Your task to perform on an android device: install app "File Manager" Image 0: 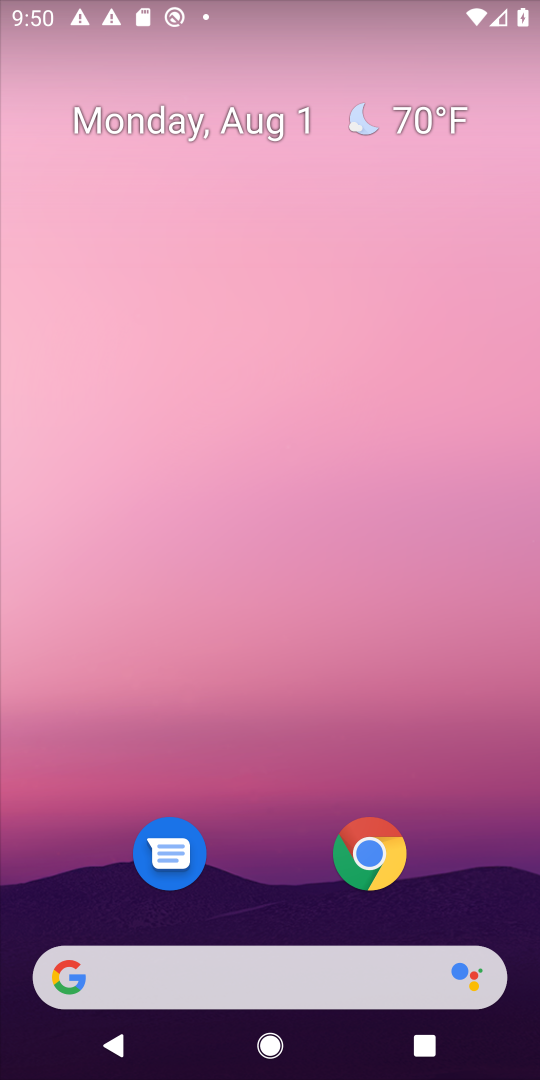
Step 0: drag from (256, 814) to (147, 10)
Your task to perform on an android device: install app "File Manager" Image 1: 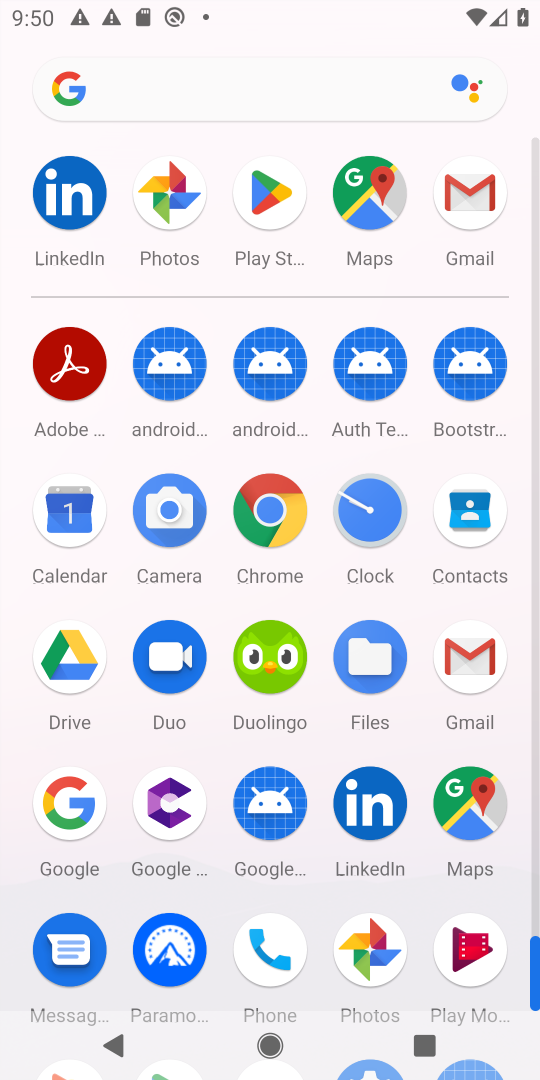
Step 1: click (262, 172)
Your task to perform on an android device: install app "File Manager" Image 2: 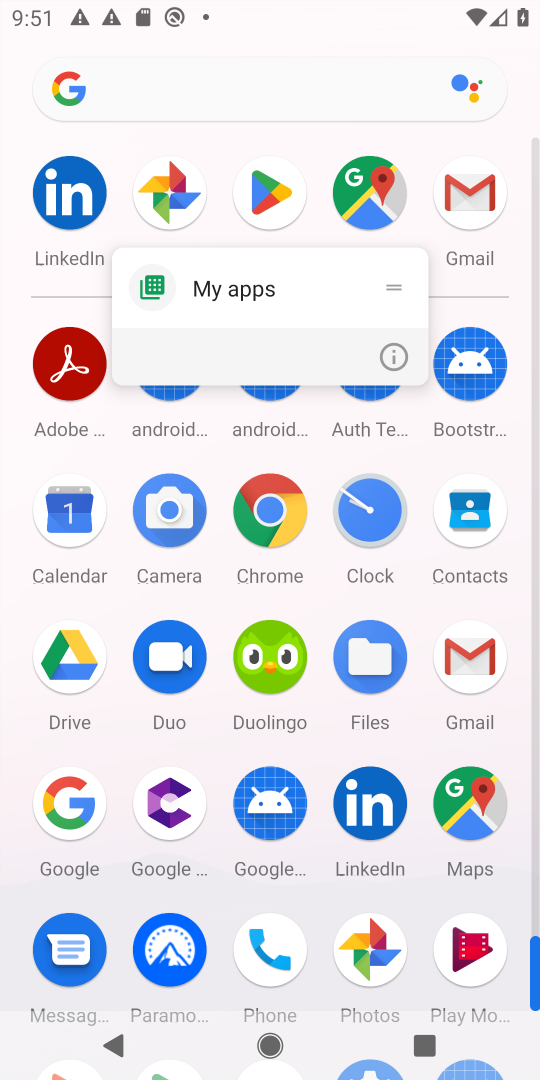
Step 2: click (389, 358)
Your task to perform on an android device: install app "File Manager" Image 3: 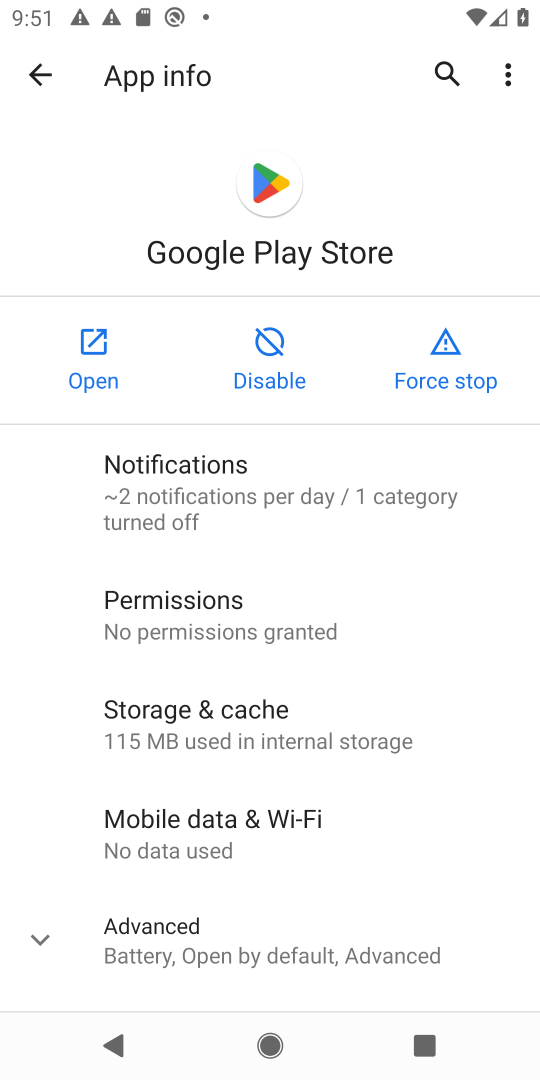
Step 3: click (116, 339)
Your task to perform on an android device: install app "File Manager" Image 4: 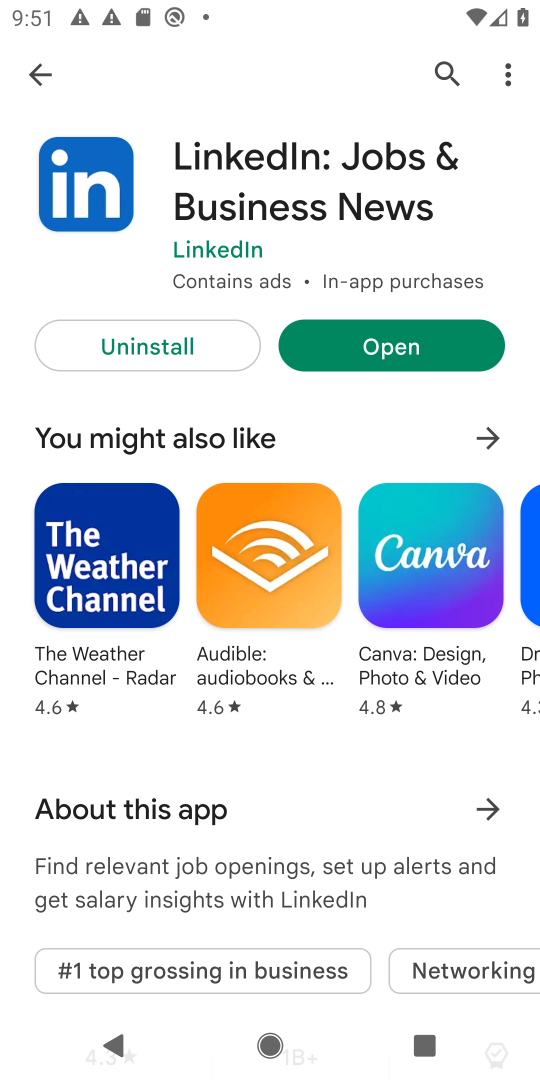
Step 4: click (451, 73)
Your task to perform on an android device: install app "File Manager" Image 5: 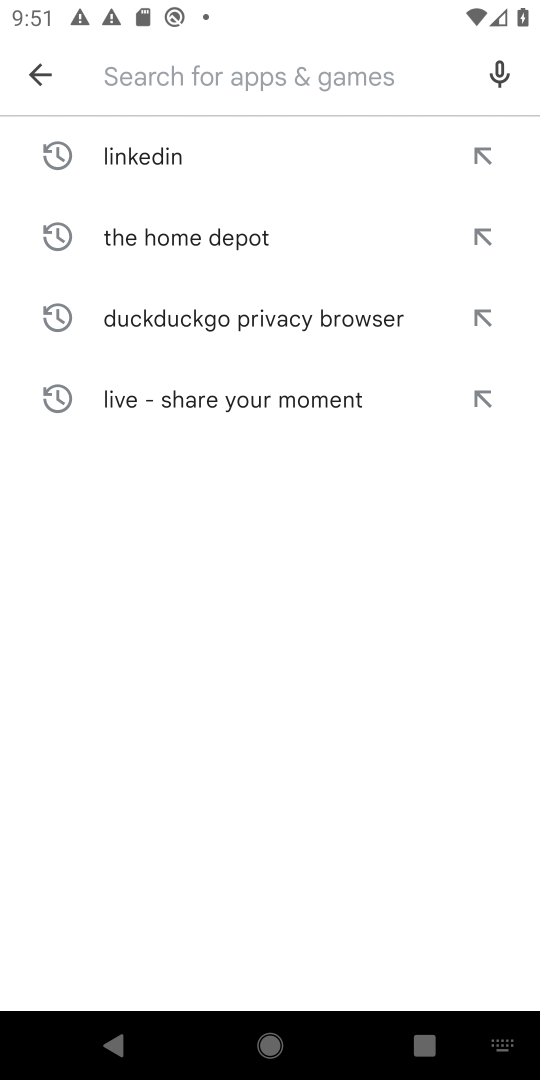
Step 5: type "File Manager"
Your task to perform on an android device: install app "File Manager" Image 6: 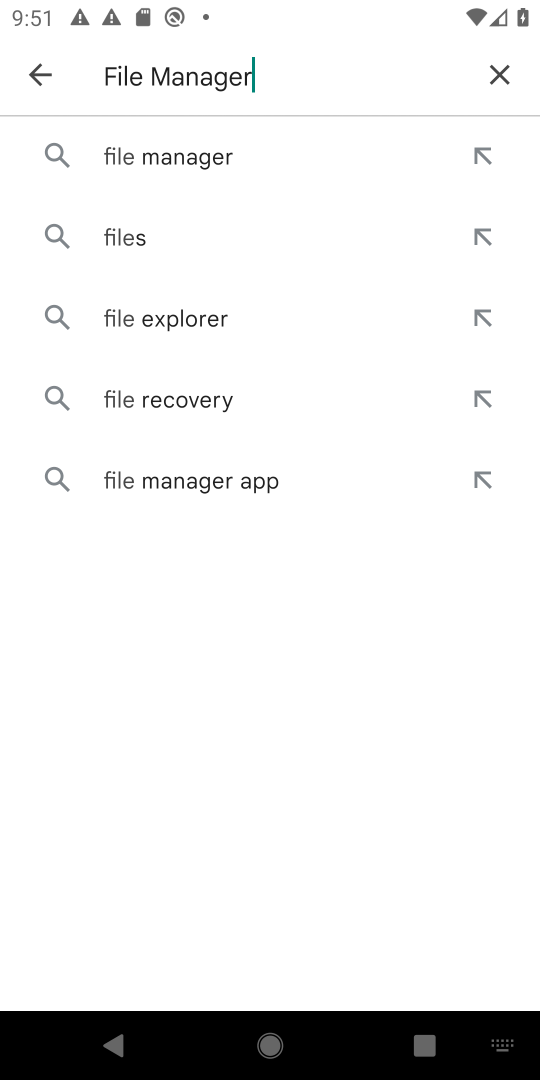
Step 6: type ""
Your task to perform on an android device: install app "File Manager" Image 7: 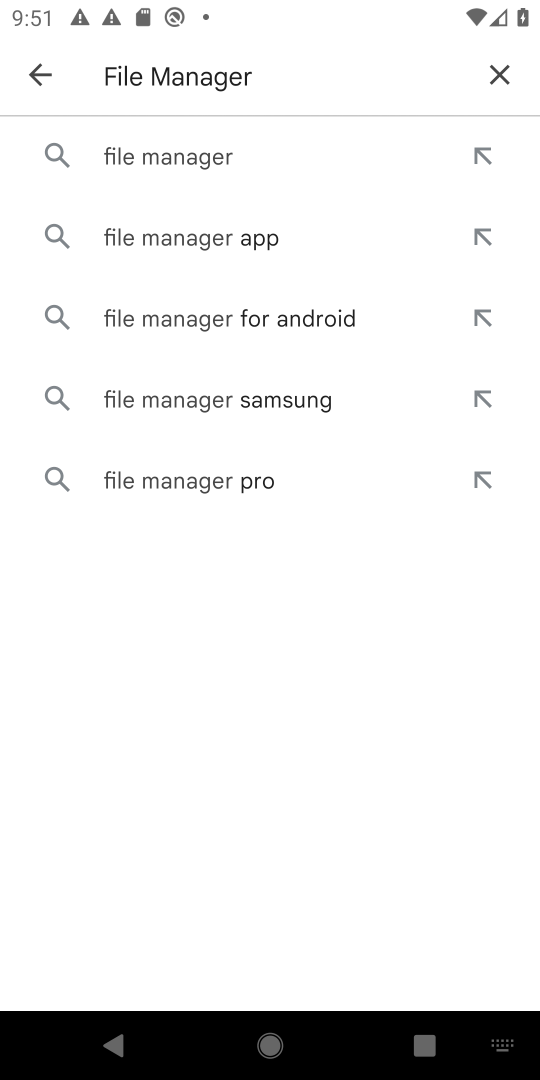
Step 7: click (199, 156)
Your task to perform on an android device: install app "File Manager" Image 8: 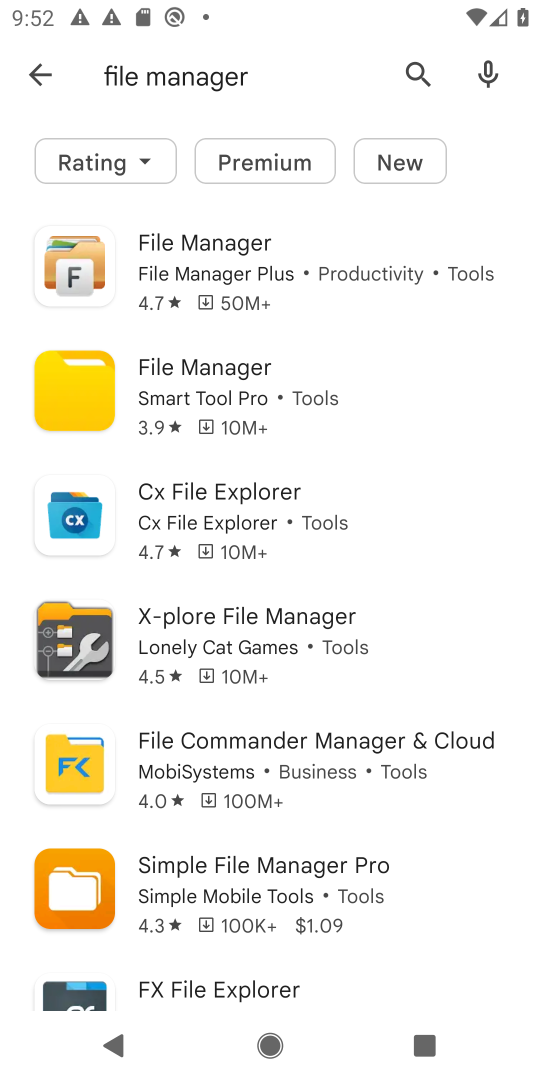
Step 8: click (209, 267)
Your task to perform on an android device: install app "File Manager" Image 9: 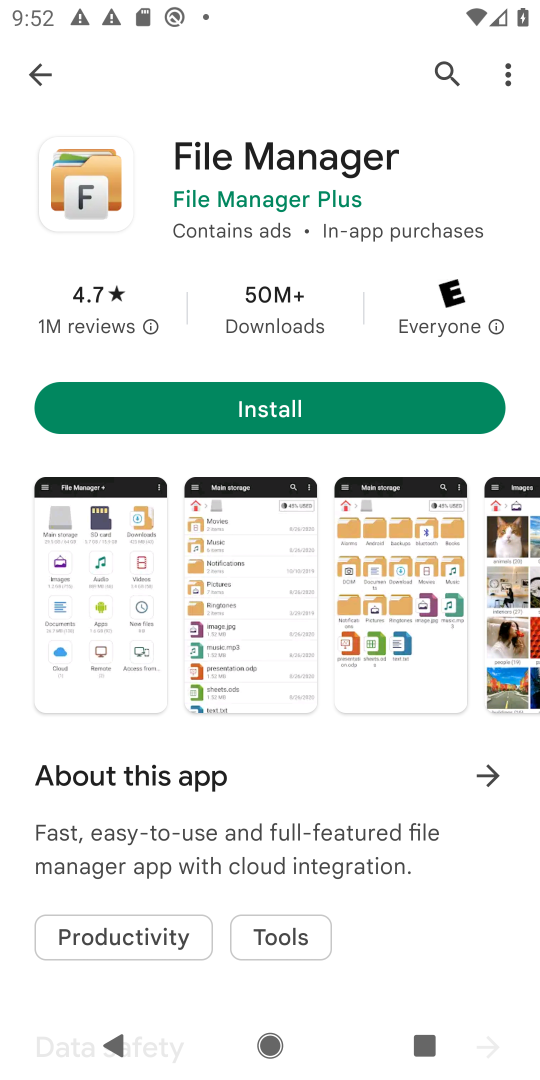
Step 9: click (227, 410)
Your task to perform on an android device: install app "File Manager" Image 10: 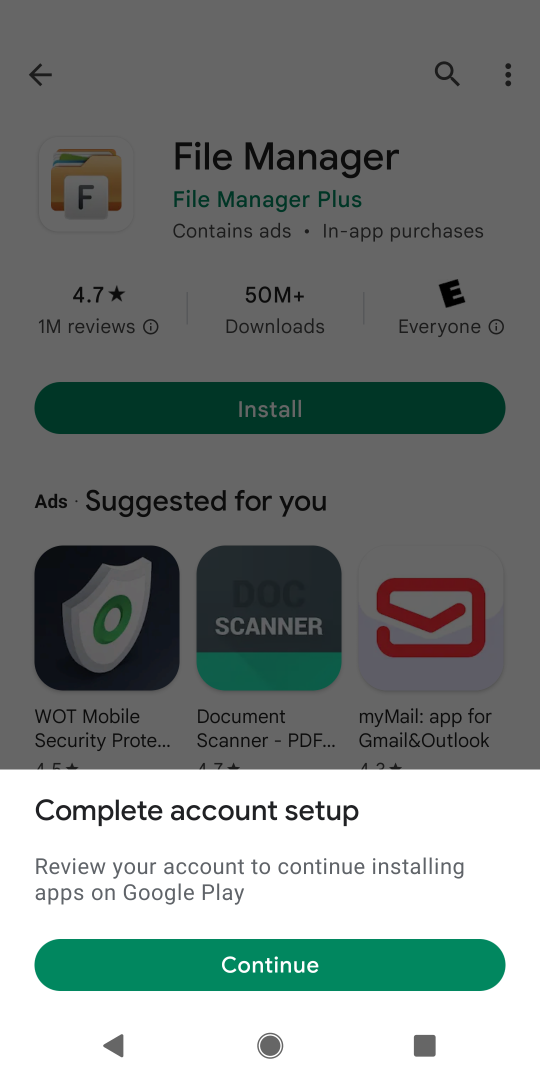
Step 10: drag from (251, 628) to (208, 32)
Your task to perform on an android device: install app "File Manager" Image 11: 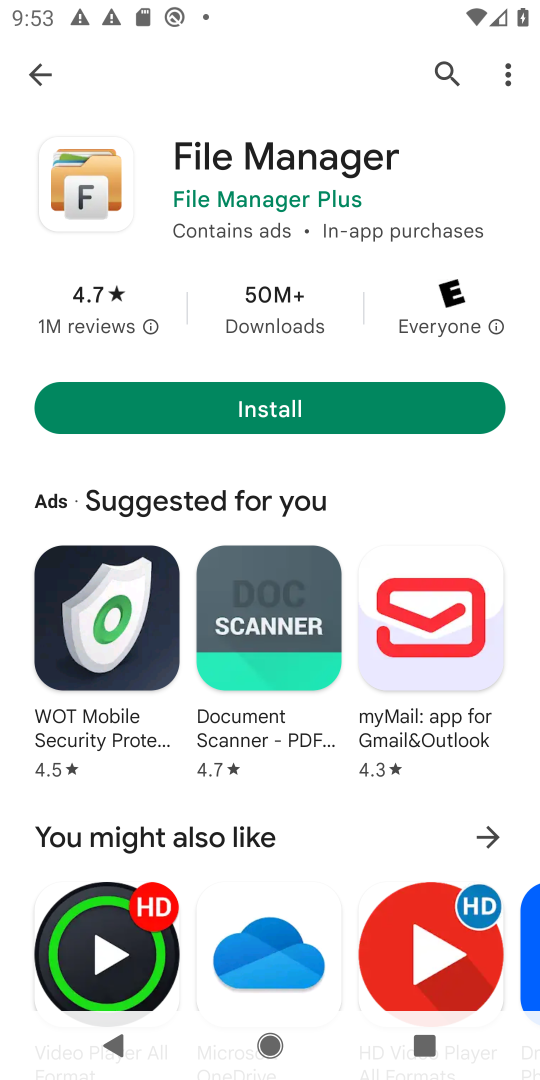
Step 11: drag from (338, 554) to (459, 116)
Your task to perform on an android device: install app "File Manager" Image 12: 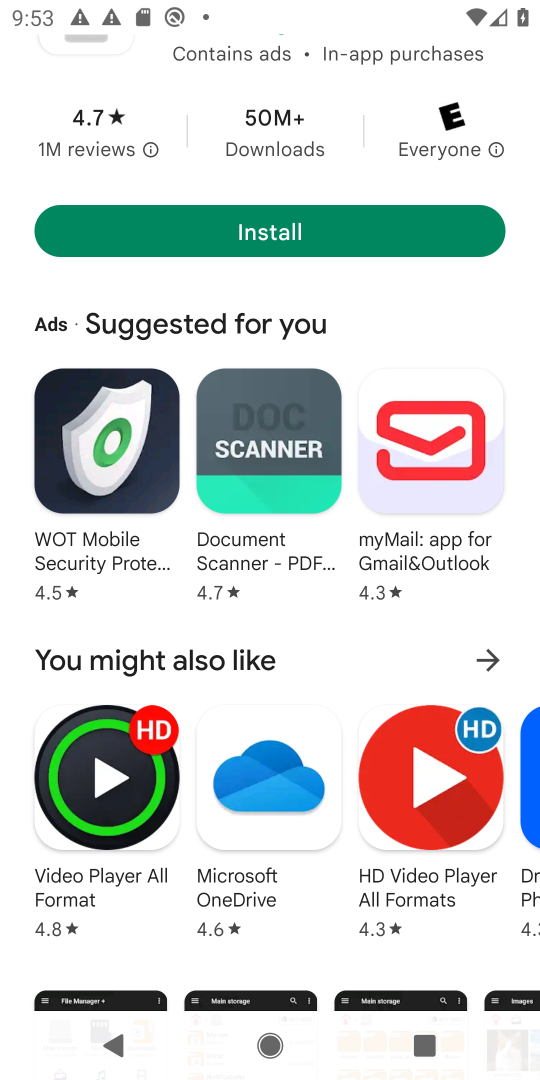
Step 12: drag from (332, 337) to (471, 1057)
Your task to perform on an android device: install app "File Manager" Image 13: 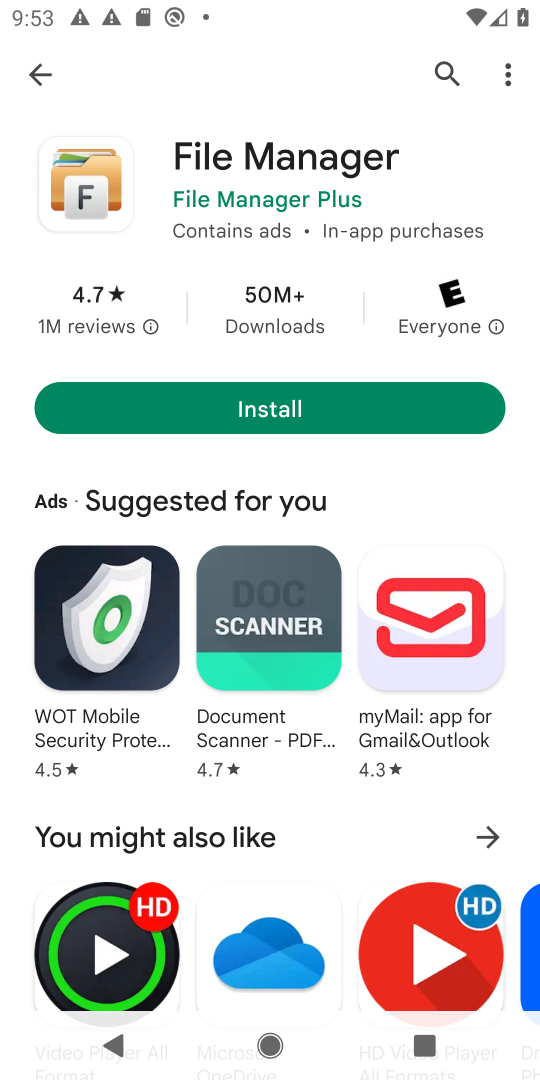
Step 13: click (255, 414)
Your task to perform on an android device: install app "File Manager" Image 14: 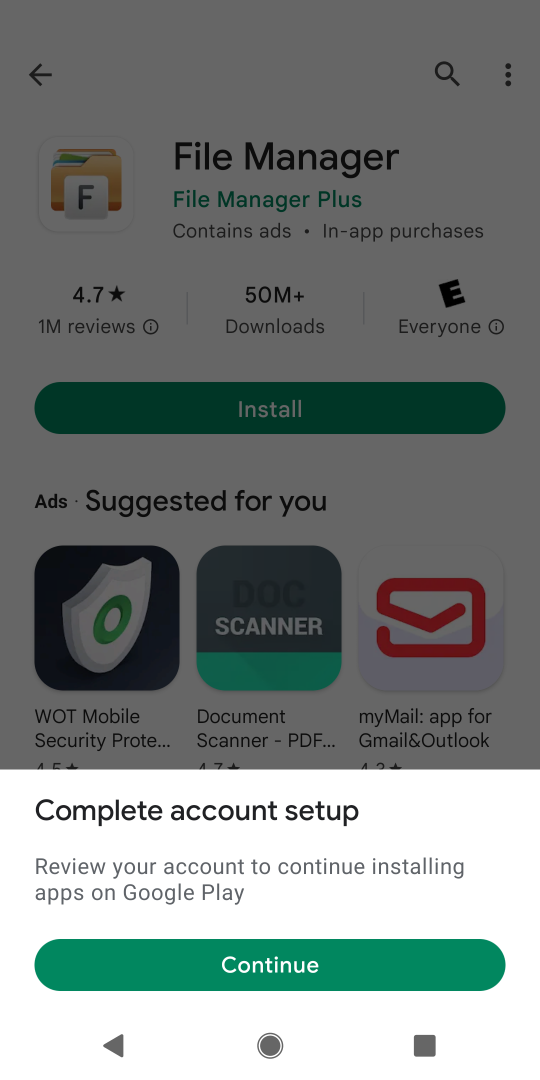
Step 14: click (245, 969)
Your task to perform on an android device: install app "File Manager" Image 15: 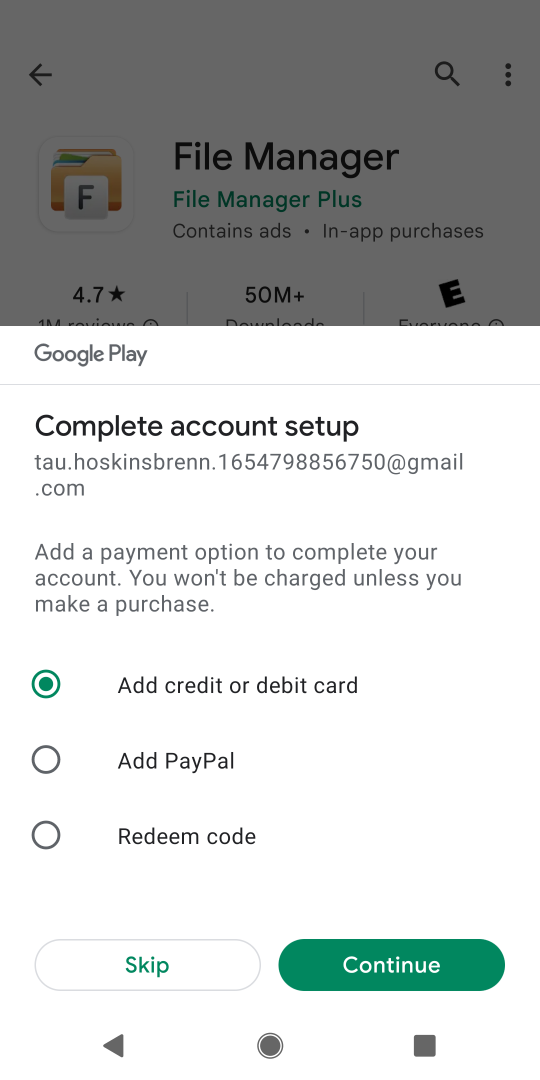
Step 15: click (180, 961)
Your task to perform on an android device: install app "File Manager" Image 16: 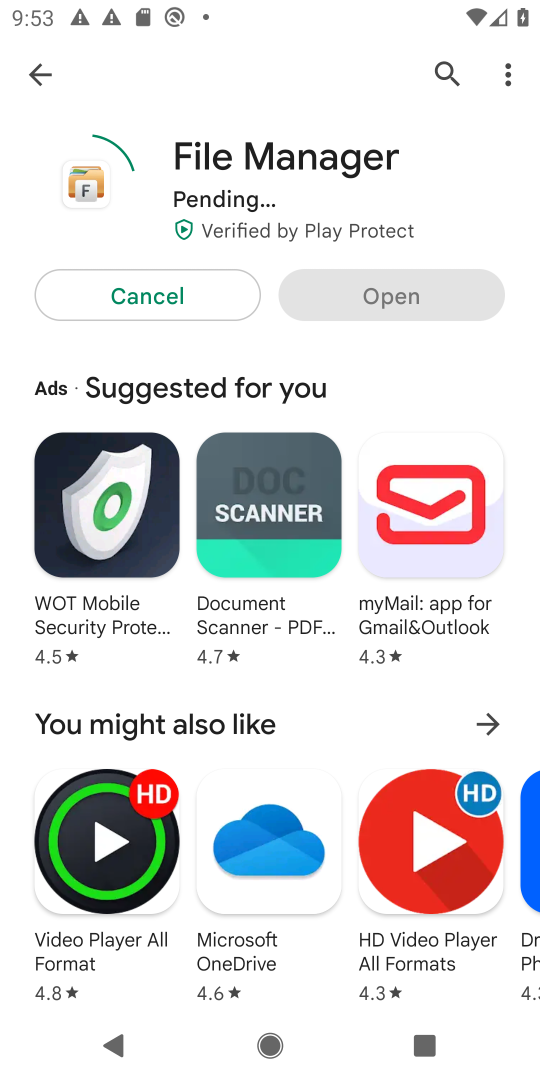
Step 16: task complete